Your task to perform on an android device: Play the last video I watched on Youtube Image 0: 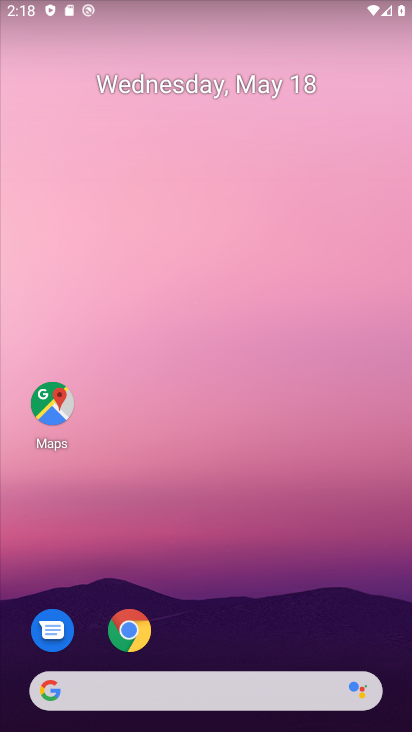
Step 0: drag from (224, 635) to (223, 108)
Your task to perform on an android device: Play the last video I watched on Youtube Image 1: 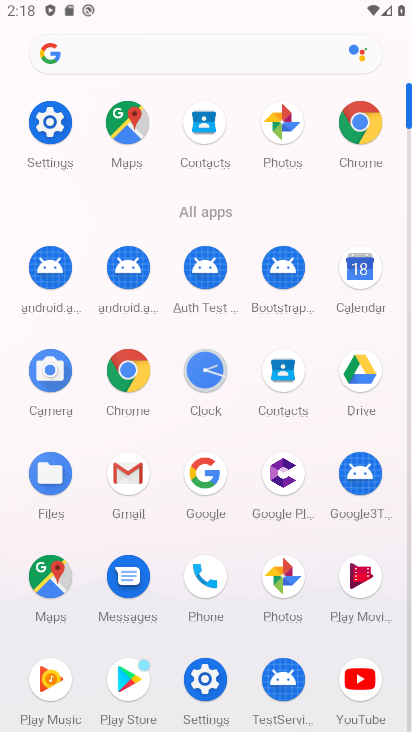
Step 1: click (358, 674)
Your task to perform on an android device: Play the last video I watched on Youtube Image 2: 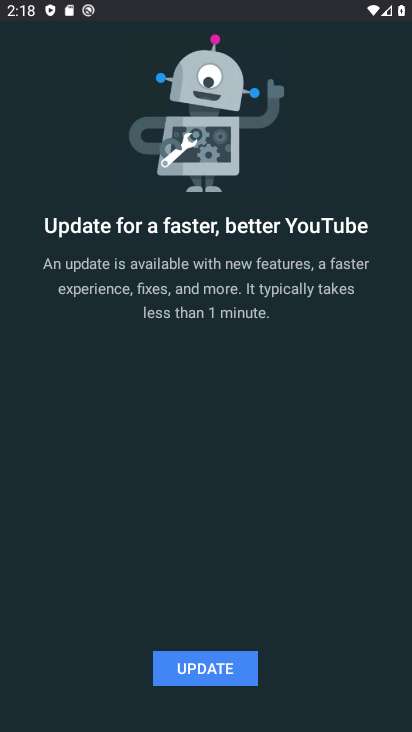
Step 2: click (199, 671)
Your task to perform on an android device: Play the last video I watched on Youtube Image 3: 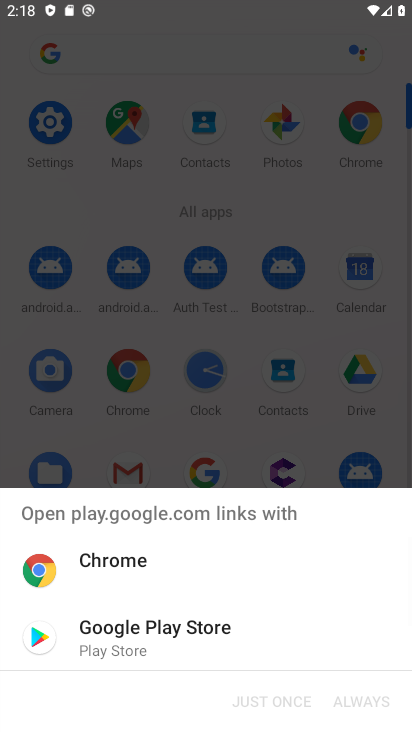
Step 3: click (140, 637)
Your task to perform on an android device: Play the last video I watched on Youtube Image 4: 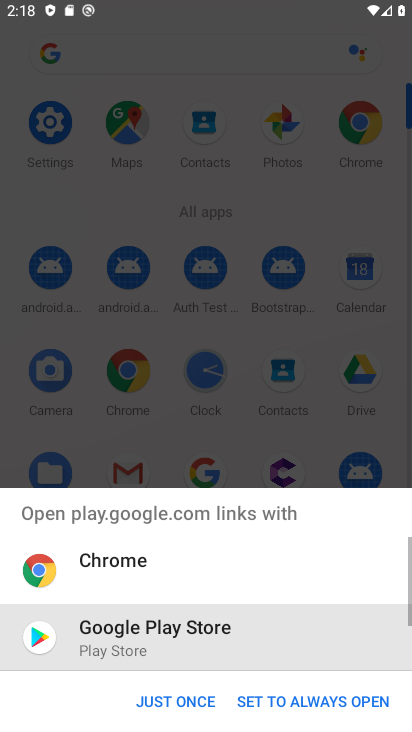
Step 4: click (173, 696)
Your task to perform on an android device: Play the last video I watched on Youtube Image 5: 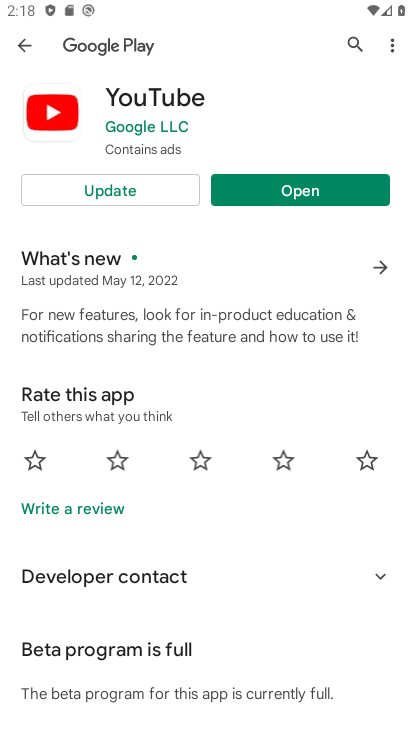
Step 5: click (102, 187)
Your task to perform on an android device: Play the last video I watched on Youtube Image 6: 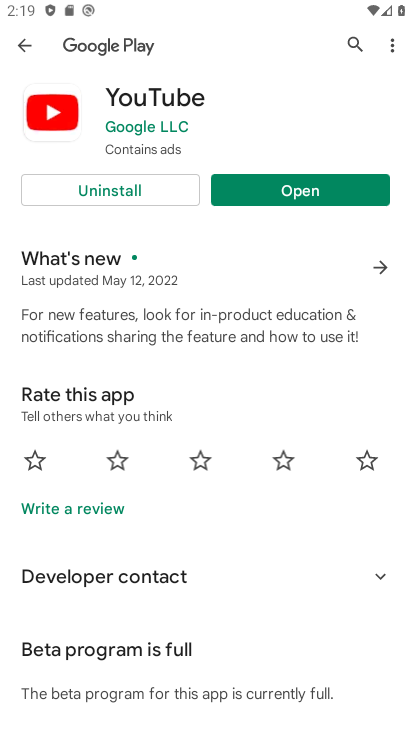
Step 6: click (296, 191)
Your task to perform on an android device: Play the last video I watched on Youtube Image 7: 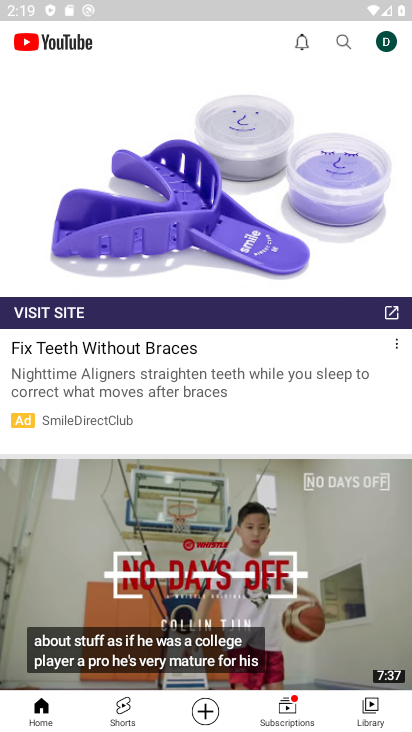
Step 7: click (372, 702)
Your task to perform on an android device: Play the last video I watched on Youtube Image 8: 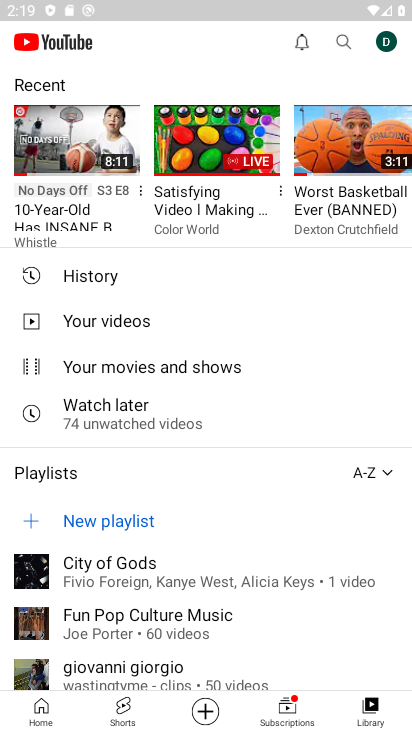
Step 8: click (76, 148)
Your task to perform on an android device: Play the last video I watched on Youtube Image 9: 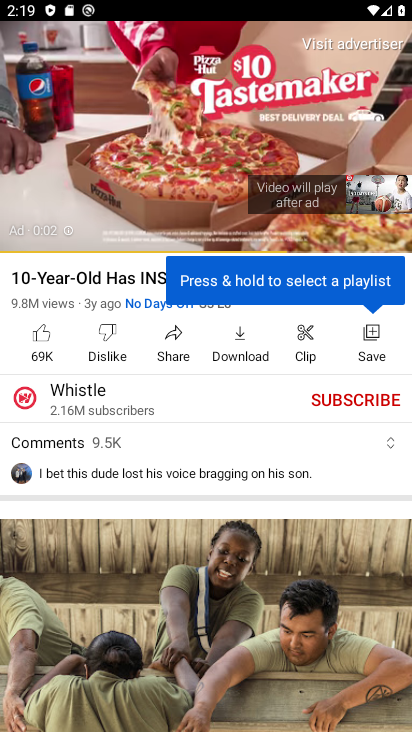
Step 9: task complete